Your task to perform on an android device: Open Wikipedia Image 0: 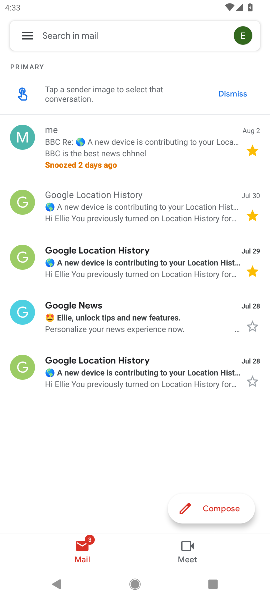
Step 0: press home button
Your task to perform on an android device: Open Wikipedia Image 1: 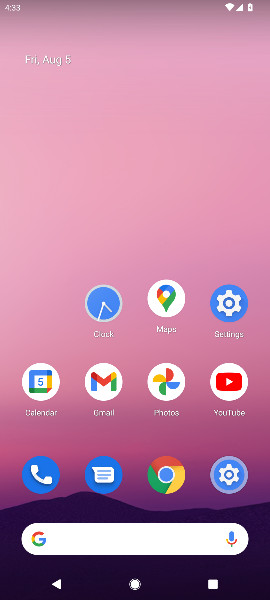
Step 1: click (159, 472)
Your task to perform on an android device: Open Wikipedia Image 2: 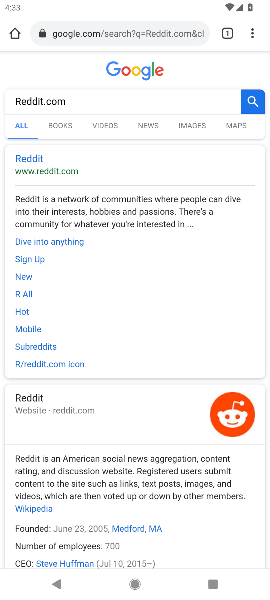
Step 2: click (115, 28)
Your task to perform on an android device: Open Wikipedia Image 3: 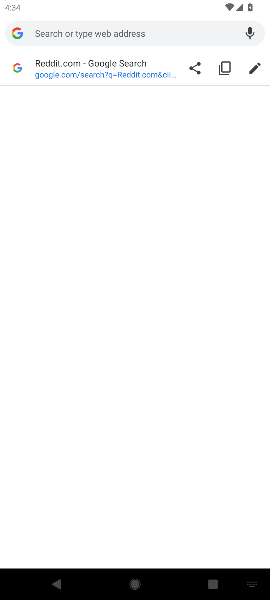
Step 3: type "Wikipedia"
Your task to perform on an android device: Open Wikipedia Image 4: 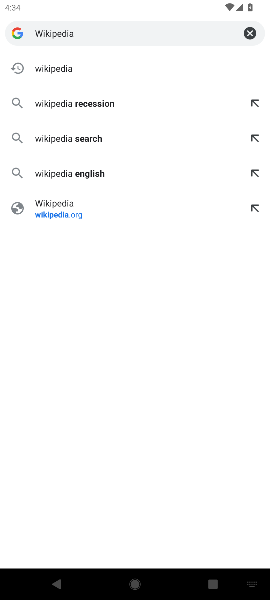
Step 4: click (61, 61)
Your task to perform on an android device: Open Wikipedia Image 5: 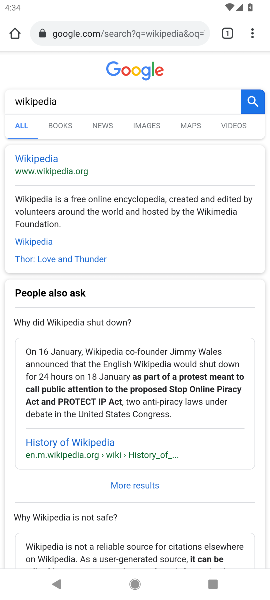
Step 5: task complete